Your task to perform on an android device: Open notification settings Image 0: 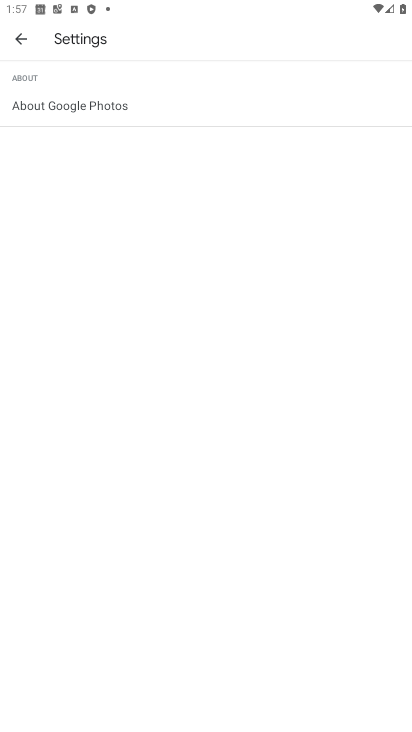
Step 0: press home button
Your task to perform on an android device: Open notification settings Image 1: 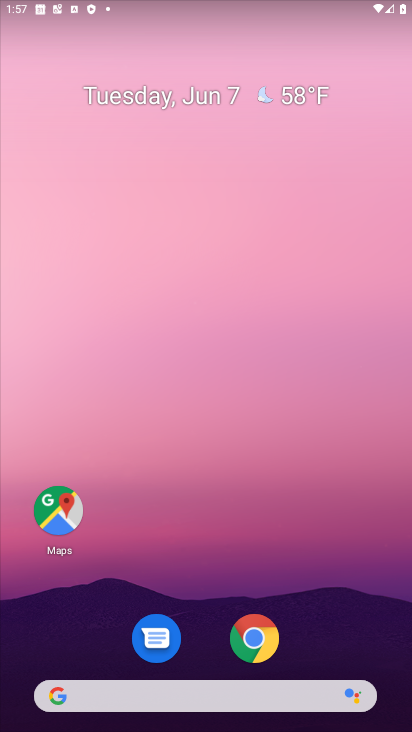
Step 1: drag from (237, 453) to (285, 237)
Your task to perform on an android device: Open notification settings Image 2: 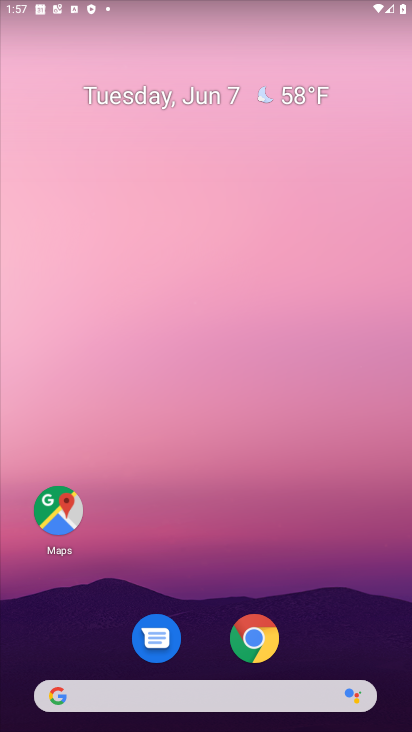
Step 2: drag from (210, 628) to (240, 262)
Your task to perform on an android device: Open notification settings Image 3: 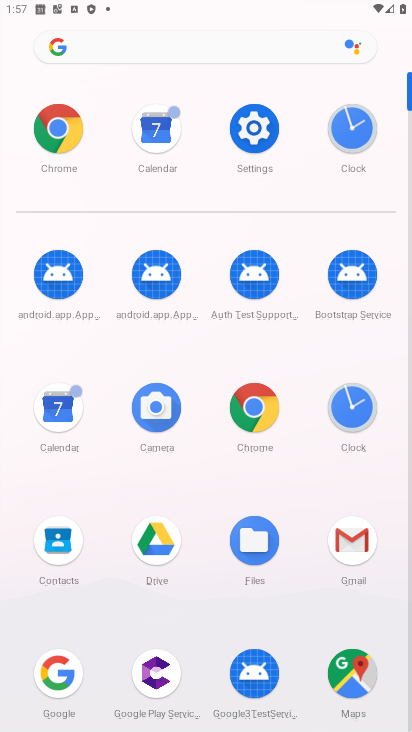
Step 3: click (245, 136)
Your task to perform on an android device: Open notification settings Image 4: 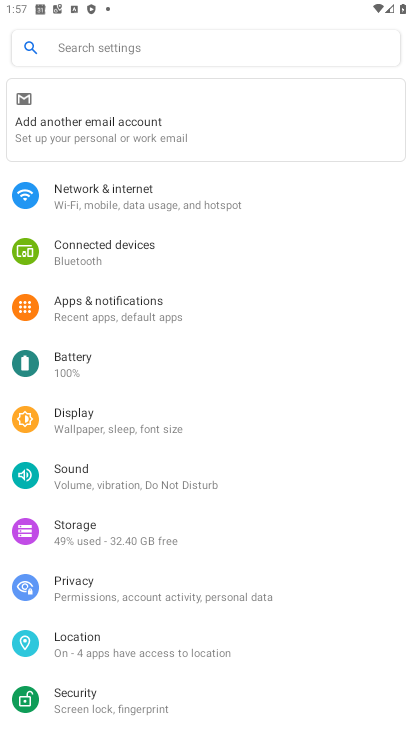
Step 4: click (126, 306)
Your task to perform on an android device: Open notification settings Image 5: 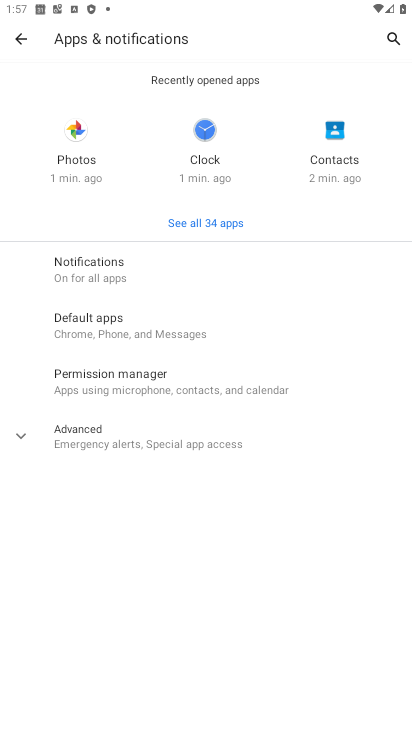
Step 5: task complete